Your task to perform on an android device: toggle priority inbox in the gmail app Image 0: 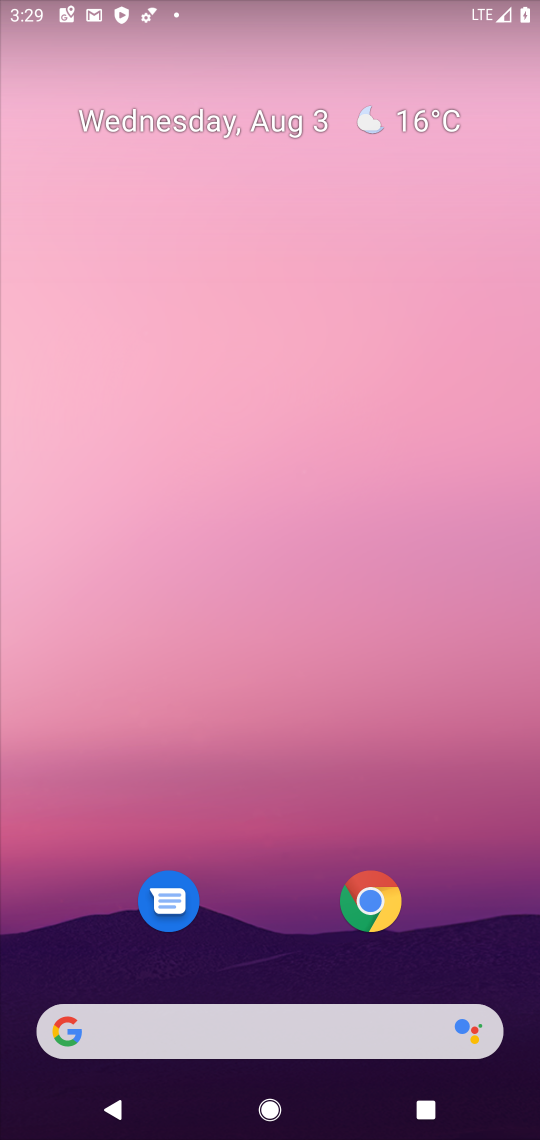
Step 0: drag from (340, 991) to (281, 98)
Your task to perform on an android device: toggle priority inbox in the gmail app Image 1: 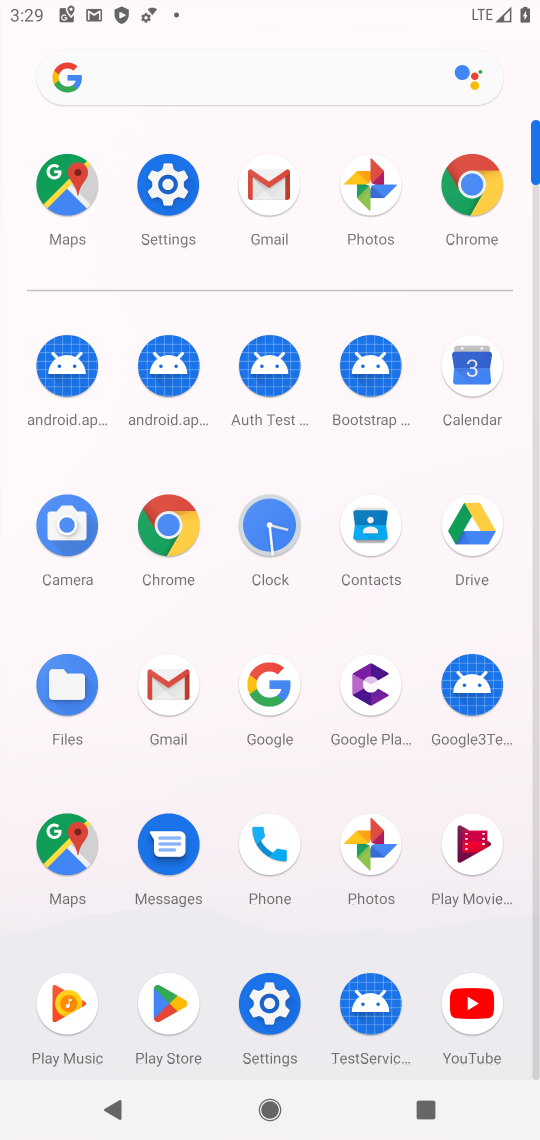
Step 1: click (183, 673)
Your task to perform on an android device: toggle priority inbox in the gmail app Image 2: 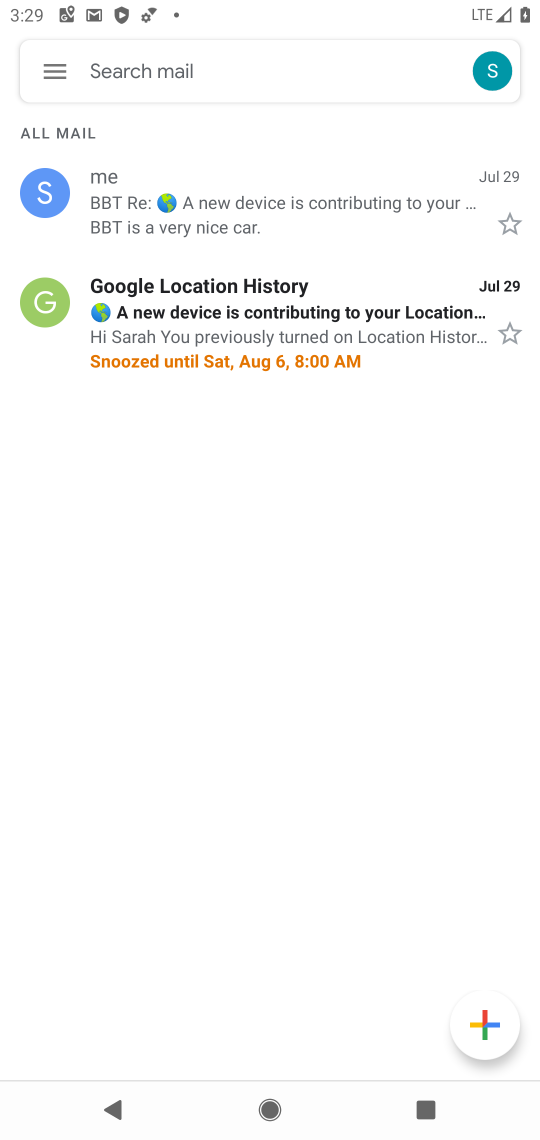
Step 2: click (41, 67)
Your task to perform on an android device: toggle priority inbox in the gmail app Image 3: 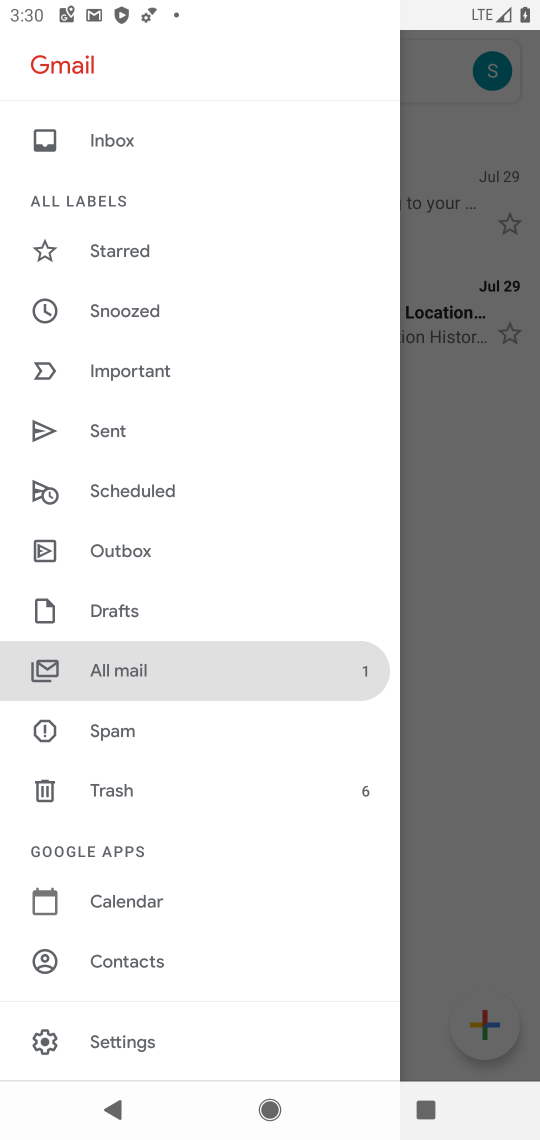
Step 3: click (117, 1020)
Your task to perform on an android device: toggle priority inbox in the gmail app Image 4: 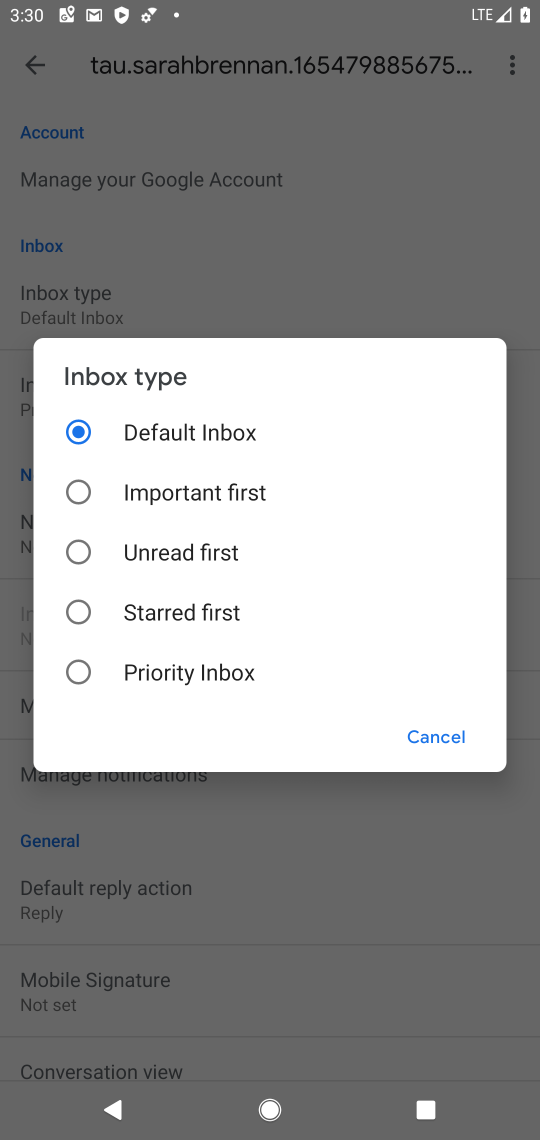
Step 4: click (191, 684)
Your task to perform on an android device: toggle priority inbox in the gmail app Image 5: 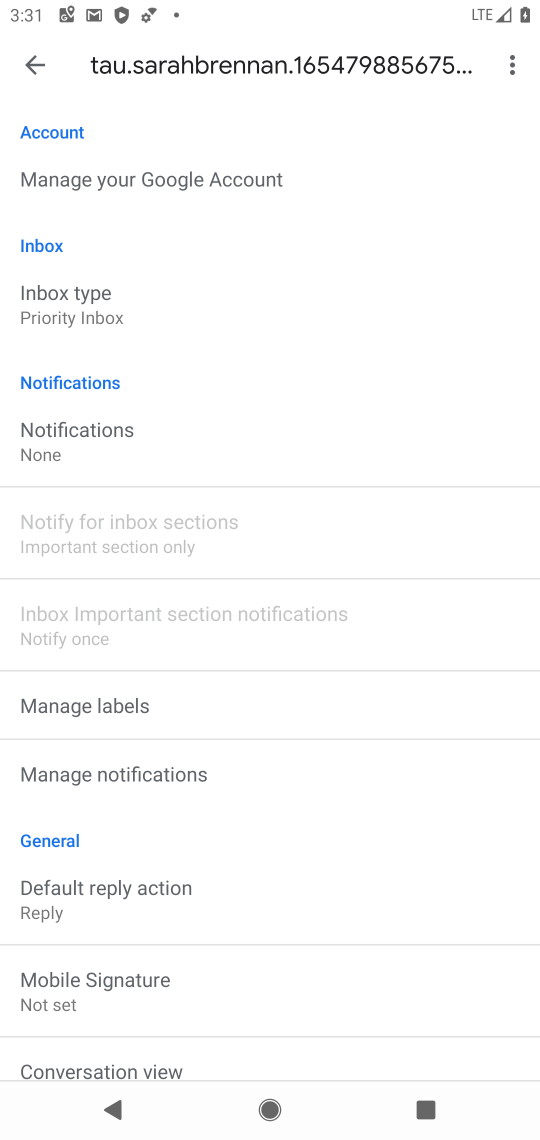
Step 5: task complete